Your task to perform on an android device: manage bookmarks in the chrome app Image 0: 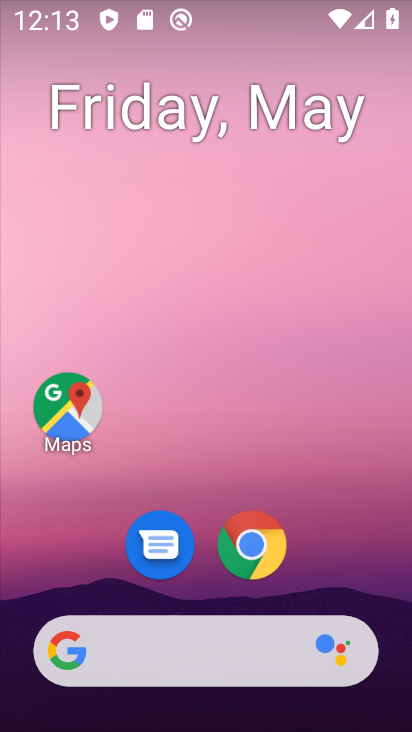
Step 0: click (245, 548)
Your task to perform on an android device: manage bookmarks in the chrome app Image 1: 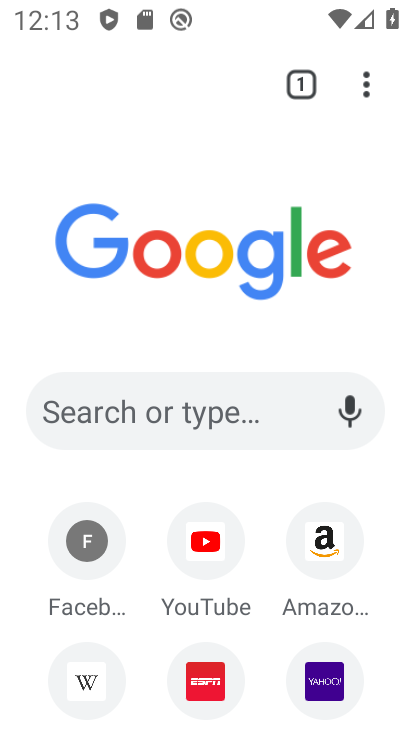
Step 1: click (361, 86)
Your task to perform on an android device: manage bookmarks in the chrome app Image 2: 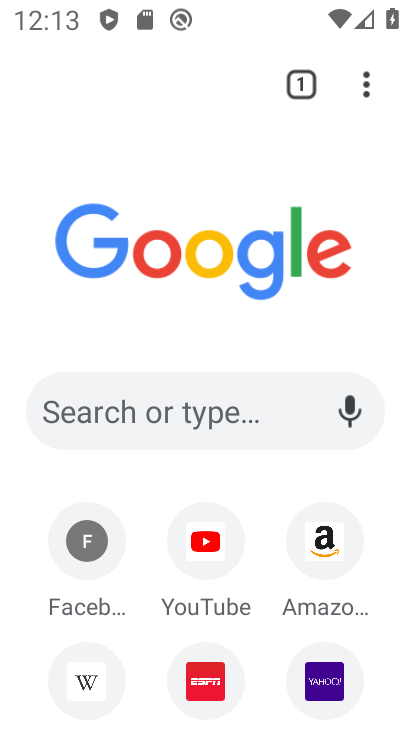
Step 2: click (369, 92)
Your task to perform on an android device: manage bookmarks in the chrome app Image 3: 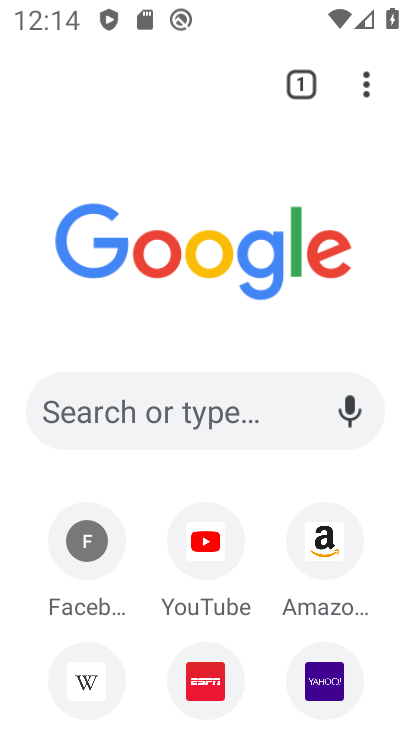
Step 3: click (365, 85)
Your task to perform on an android device: manage bookmarks in the chrome app Image 4: 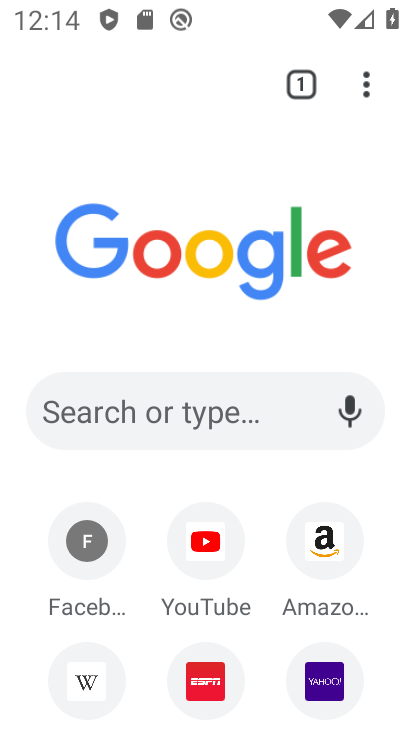
Step 4: click (365, 85)
Your task to perform on an android device: manage bookmarks in the chrome app Image 5: 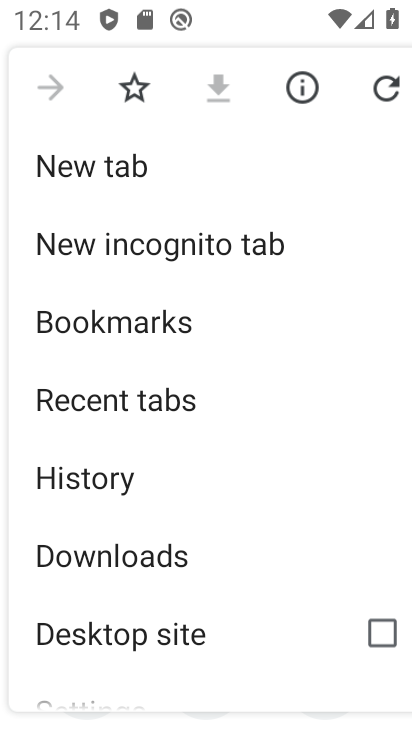
Step 5: click (144, 332)
Your task to perform on an android device: manage bookmarks in the chrome app Image 6: 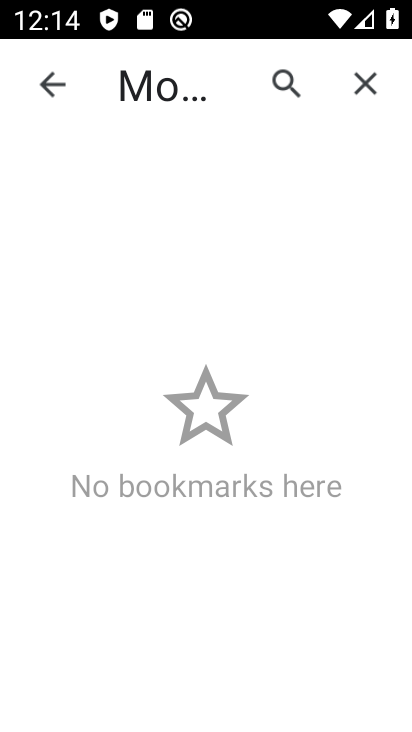
Step 6: task complete